Your task to perform on an android device: Open Google Chrome and click the shortcut for Amazon.com Image 0: 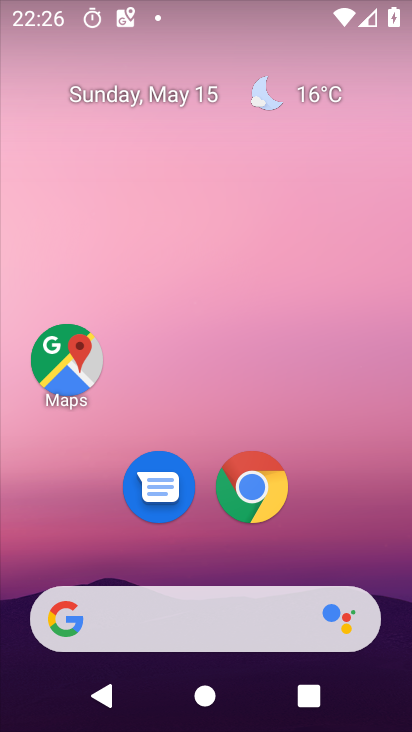
Step 0: click (244, 481)
Your task to perform on an android device: Open Google Chrome and click the shortcut for Amazon.com Image 1: 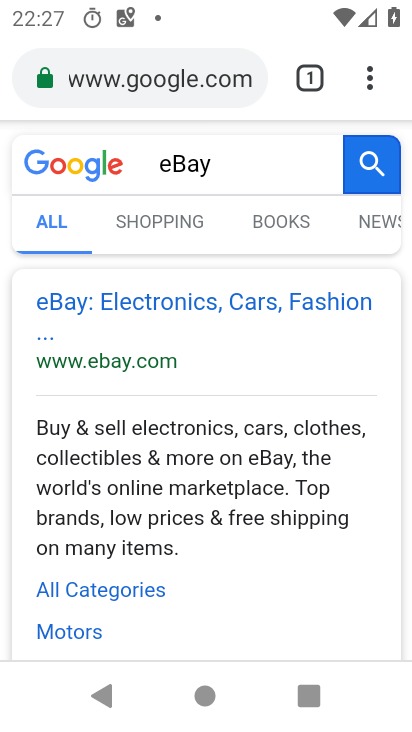
Step 1: click (254, 76)
Your task to perform on an android device: Open Google Chrome and click the shortcut for Amazon.com Image 2: 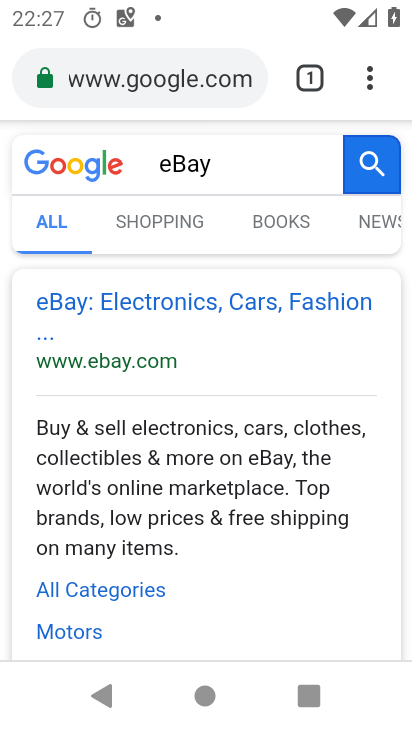
Step 2: click (254, 77)
Your task to perform on an android device: Open Google Chrome and click the shortcut for Amazon.com Image 3: 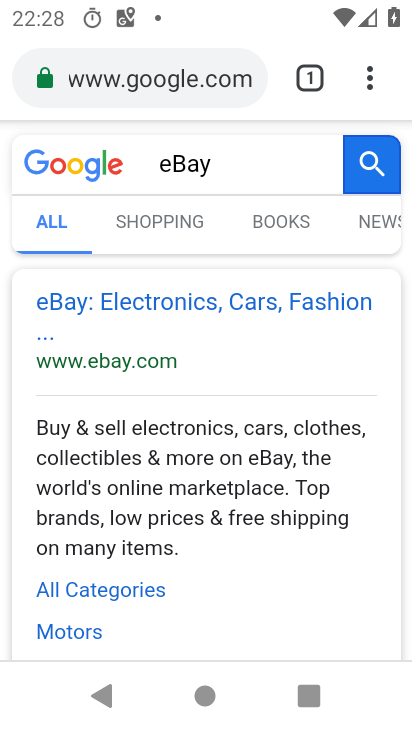
Step 3: click (264, 169)
Your task to perform on an android device: Open Google Chrome and click the shortcut for Amazon.com Image 4: 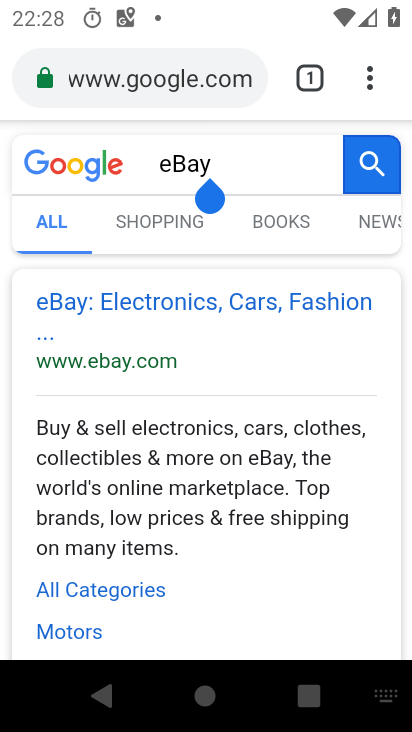
Step 4: click (253, 82)
Your task to perform on an android device: Open Google Chrome and click the shortcut for Amazon.com Image 5: 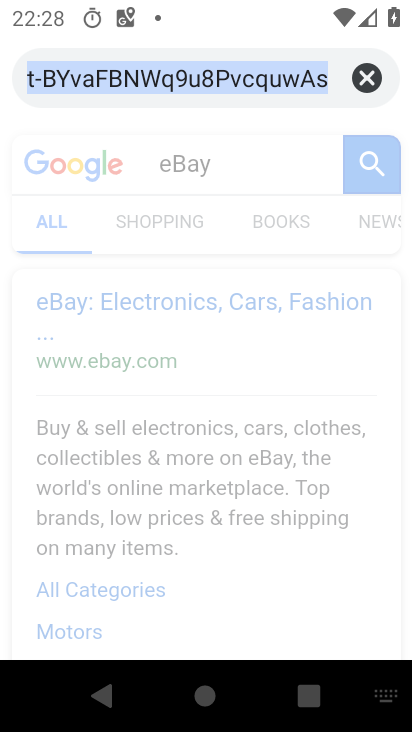
Step 5: click (356, 84)
Your task to perform on an android device: Open Google Chrome and click the shortcut for Amazon.com Image 6: 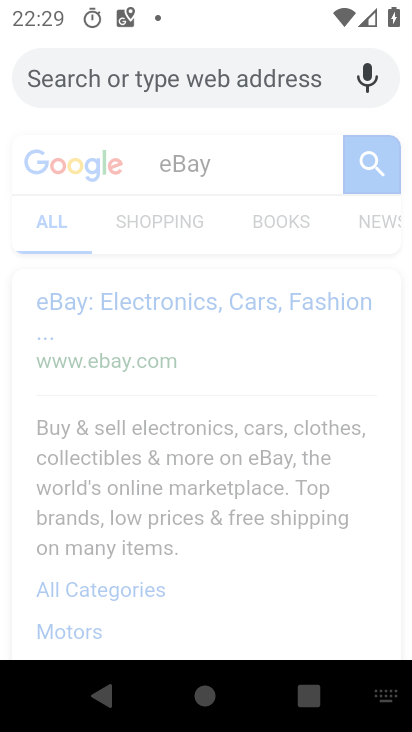
Step 6: type "Amazon.com"
Your task to perform on an android device: Open Google Chrome and click the shortcut for Amazon.com Image 7: 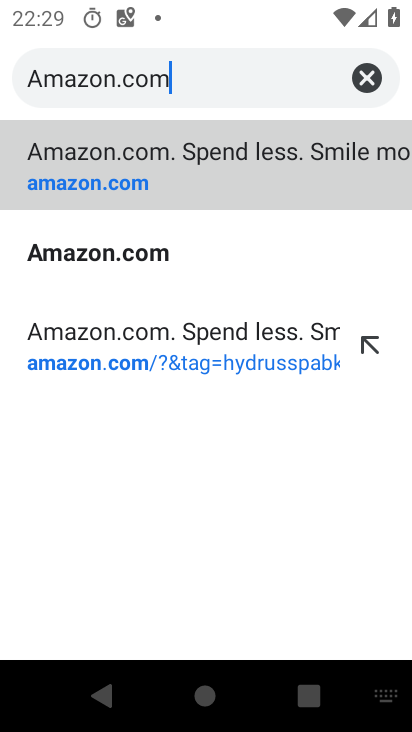
Step 7: click (123, 252)
Your task to perform on an android device: Open Google Chrome and click the shortcut for Amazon.com Image 8: 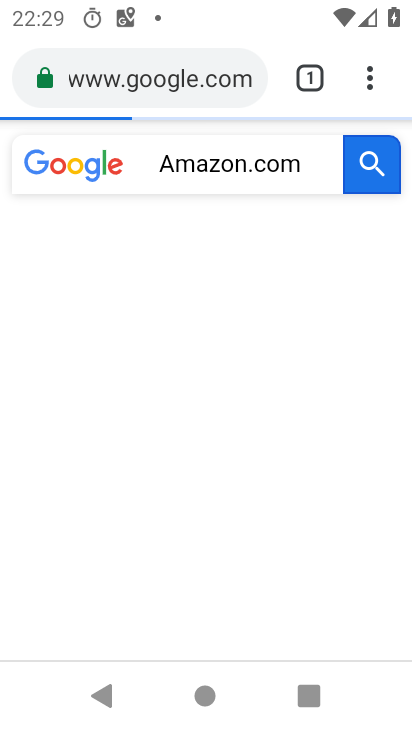
Step 8: click (114, 252)
Your task to perform on an android device: Open Google Chrome and click the shortcut for Amazon.com Image 9: 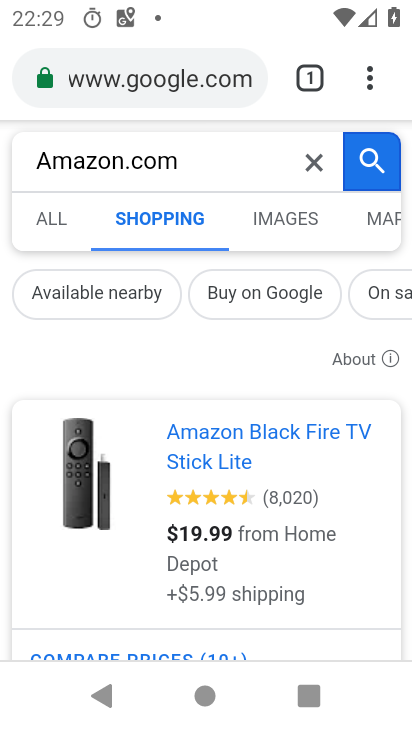
Step 9: task complete